Your task to perform on an android device: Open the phone app and click the voicemail tab. Image 0: 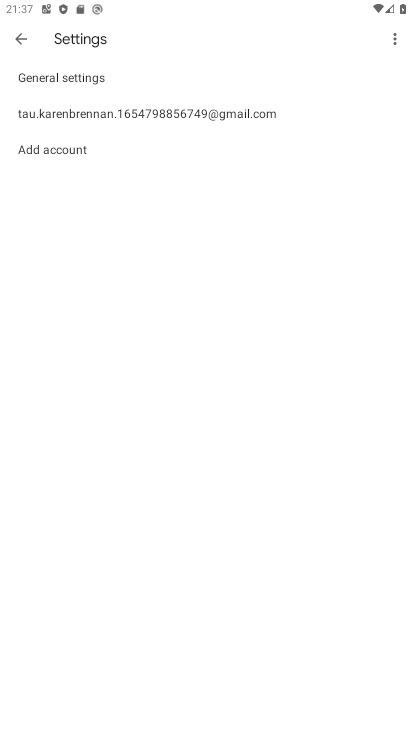
Step 0: press home button
Your task to perform on an android device: Open the phone app and click the voicemail tab. Image 1: 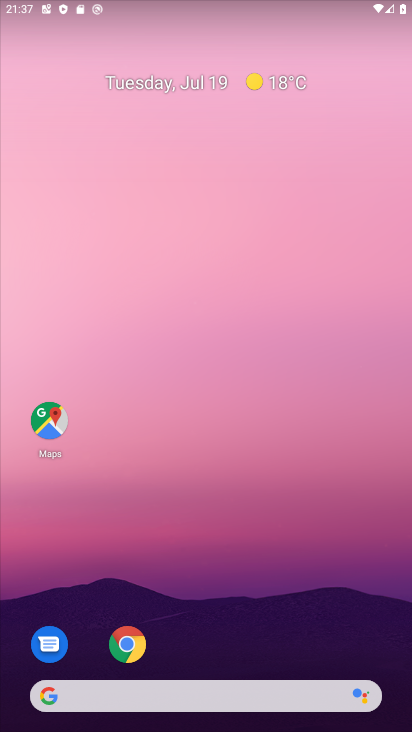
Step 1: drag from (233, 726) to (249, 189)
Your task to perform on an android device: Open the phone app and click the voicemail tab. Image 2: 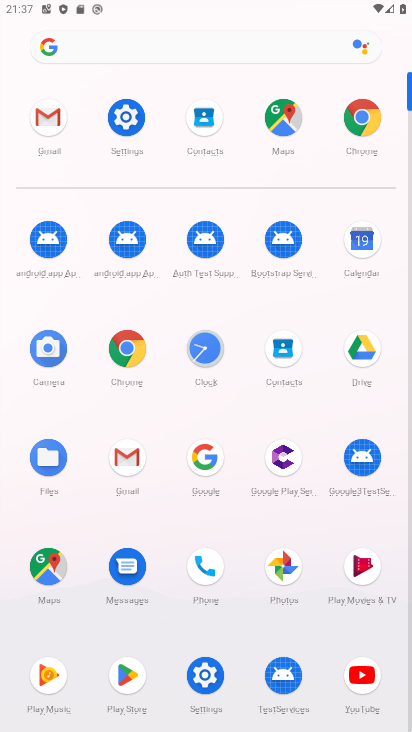
Step 2: click (210, 566)
Your task to perform on an android device: Open the phone app and click the voicemail tab. Image 3: 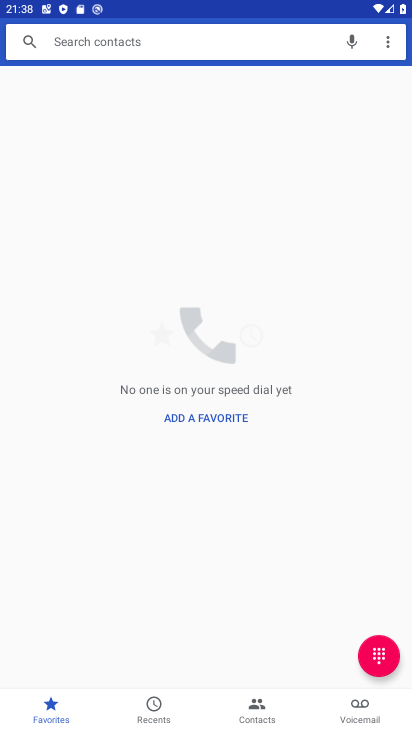
Step 3: click (359, 707)
Your task to perform on an android device: Open the phone app and click the voicemail tab. Image 4: 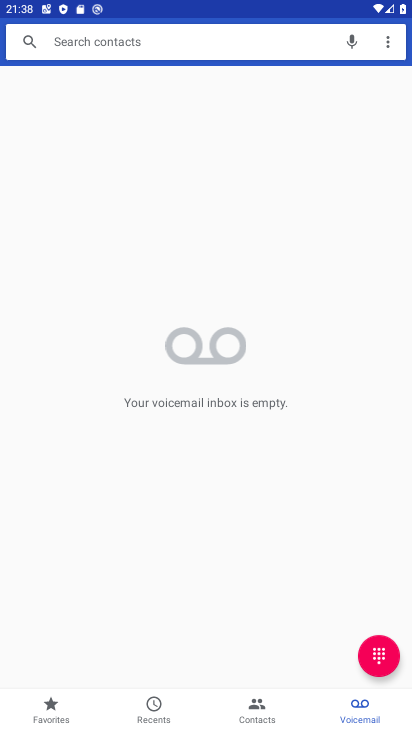
Step 4: task complete